Your task to perform on an android device: Check the news Image 0: 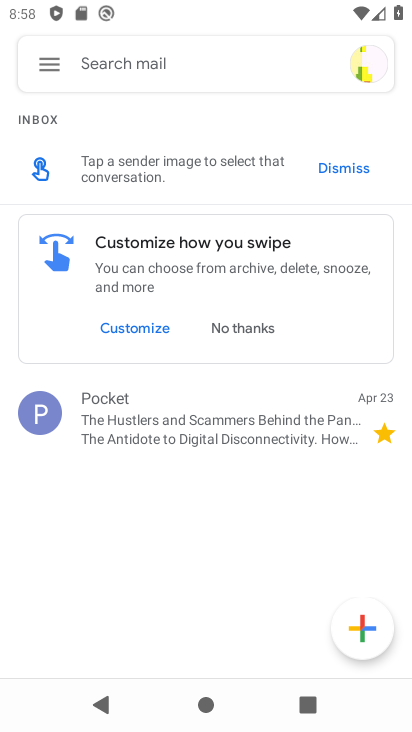
Step 0: press home button
Your task to perform on an android device: Check the news Image 1: 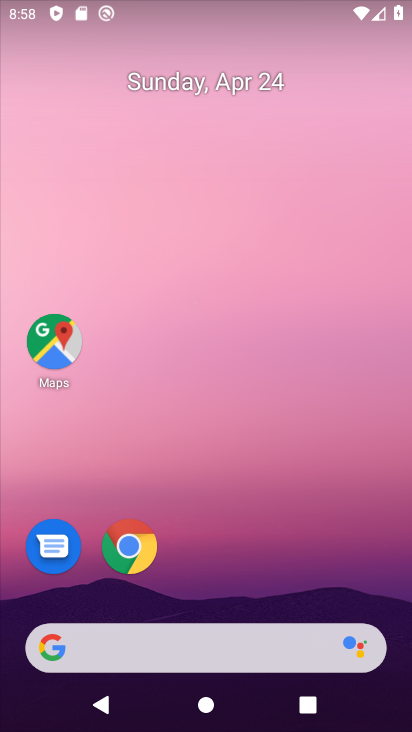
Step 1: drag from (215, 611) to (361, 9)
Your task to perform on an android device: Check the news Image 2: 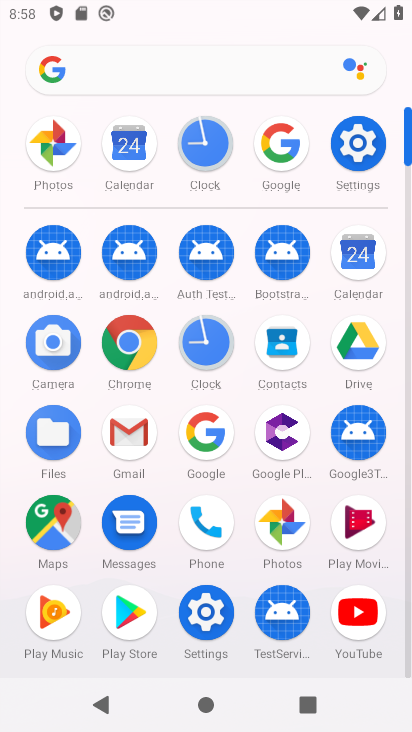
Step 2: click (287, 148)
Your task to perform on an android device: Check the news Image 3: 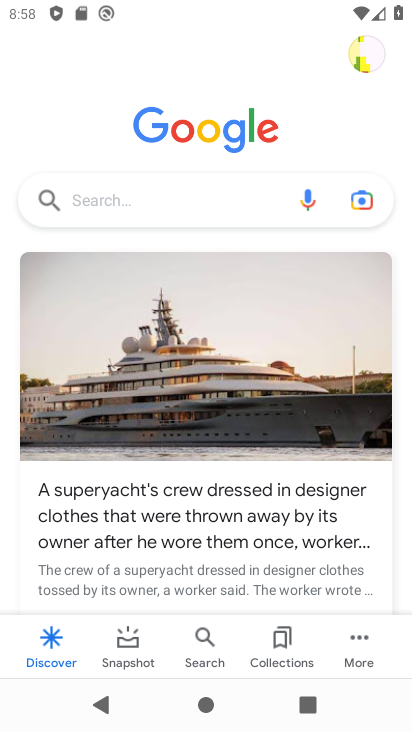
Step 3: click (119, 202)
Your task to perform on an android device: Check the news Image 4: 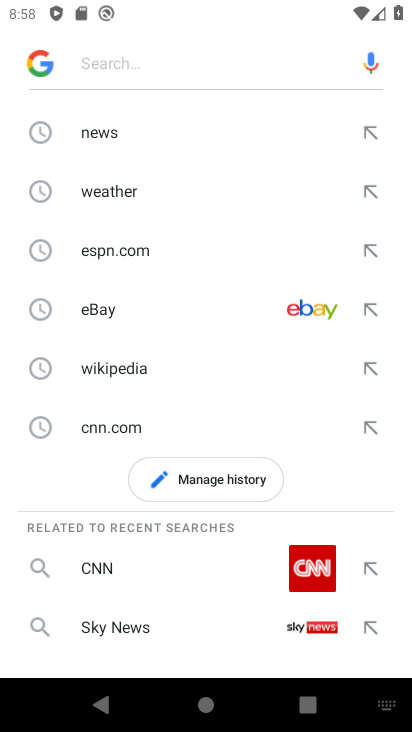
Step 4: click (136, 117)
Your task to perform on an android device: Check the news Image 5: 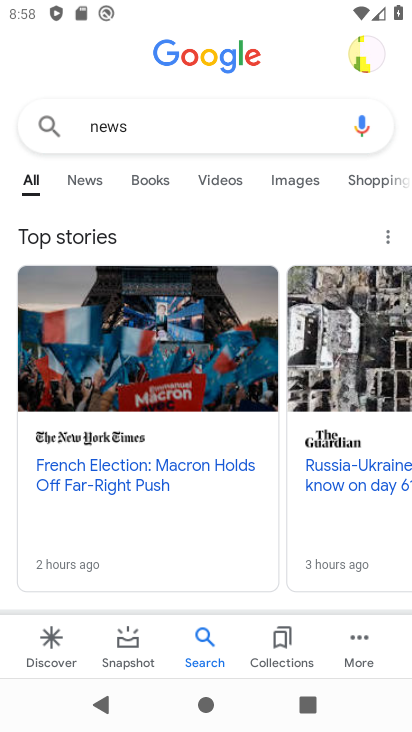
Step 5: task complete